Your task to perform on an android device: turn off location Image 0: 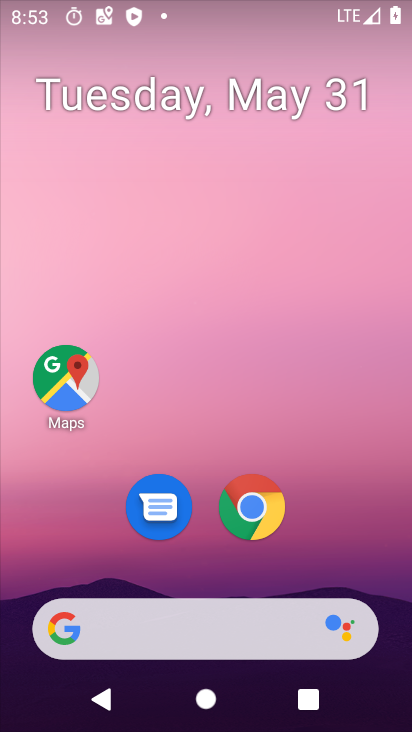
Step 0: drag from (3, 693) to (206, 133)
Your task to perform on an android device: turn off location Image 1: 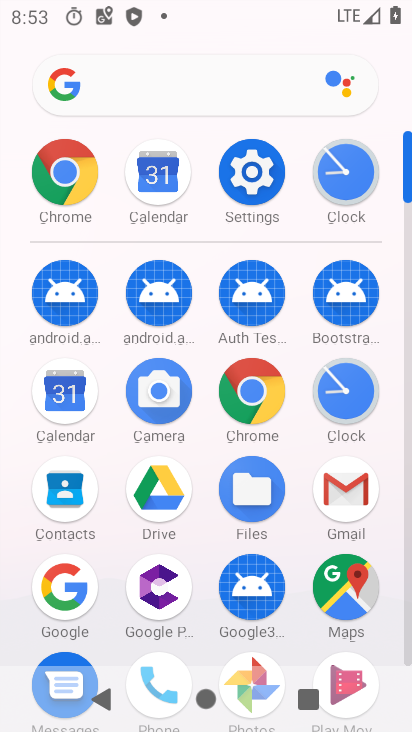
Step 1: click (238, 176)
Your task to perform on an android device: turn off location Image 2: 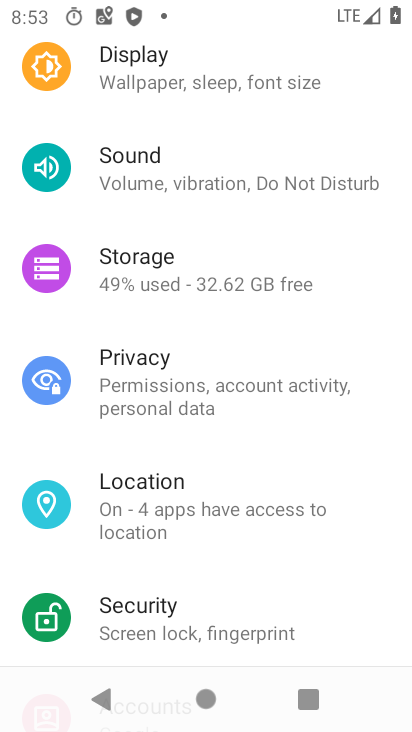
Step 2: click (178, 509)
Your task to perform on an android device: turn off location Image 3: 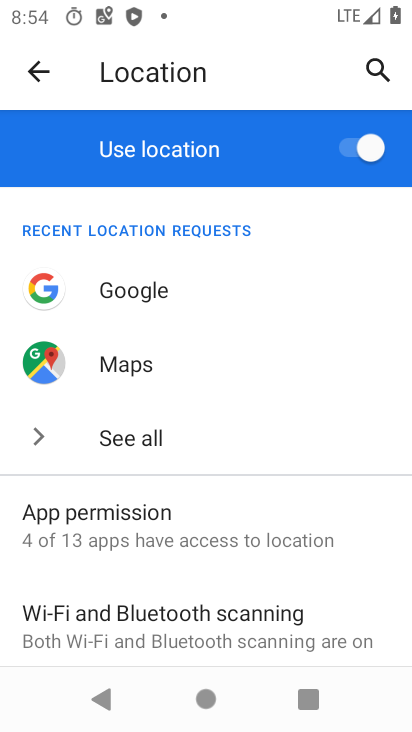
Step 3: click (376, 143)
Your task to perform on an android device: turn off location Image 4: 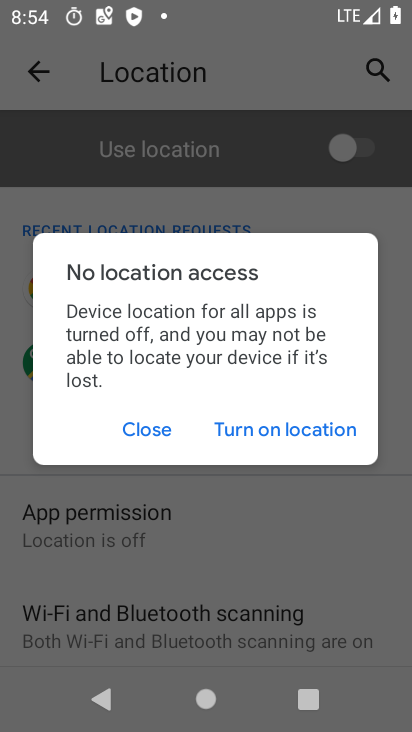
Step 4: task complete